Your task to perform on an android device: empty trash in google photos Image 0: 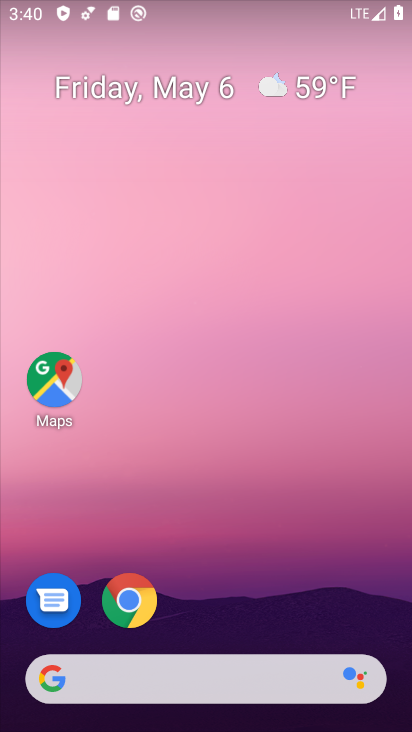
Step 0: drag from (218, 628) to (306, 2)
Your task to perform on an android device: empty trash in google photos Image 1: 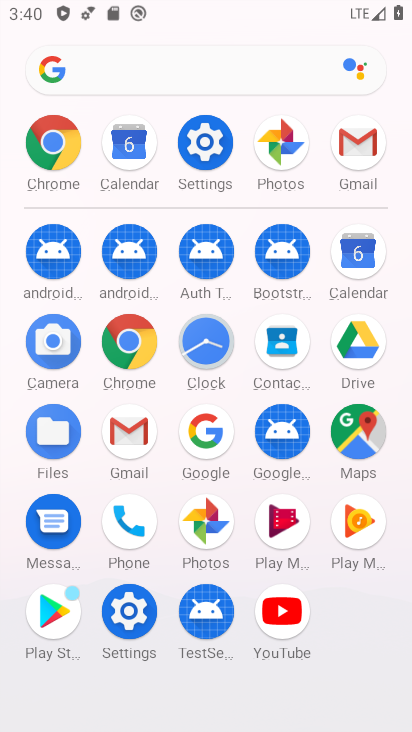
Step 1: click (201, 530)
Your task to perform on an android device: empty trash in google photos Image 2: 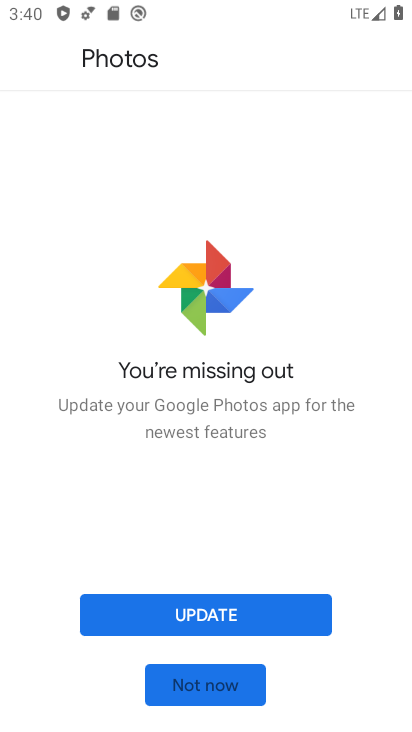
Step 2: click (193, 694)
Your task to perform on an android device: empty trash in google photos Image 3: 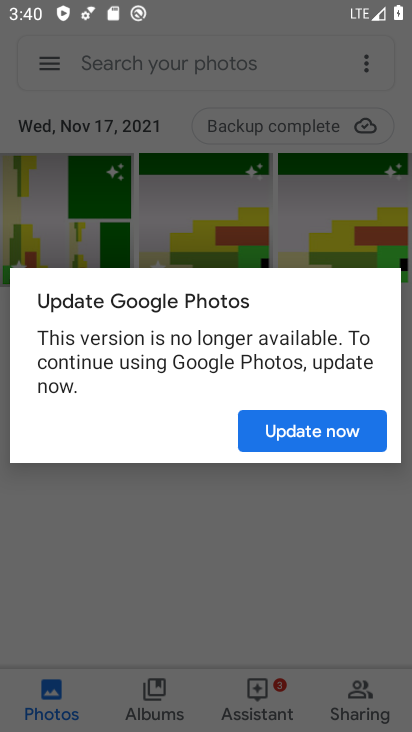
Step 3: click (319, 431)
Your task to perform on an android device: empty trash in google photos Image 4: 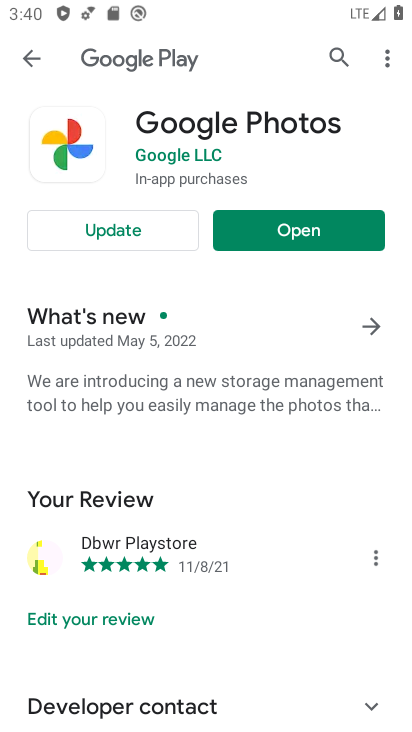
Step 4: click (125, 235)
Your task to perform on an android device: empty trash in google photos Image 5: 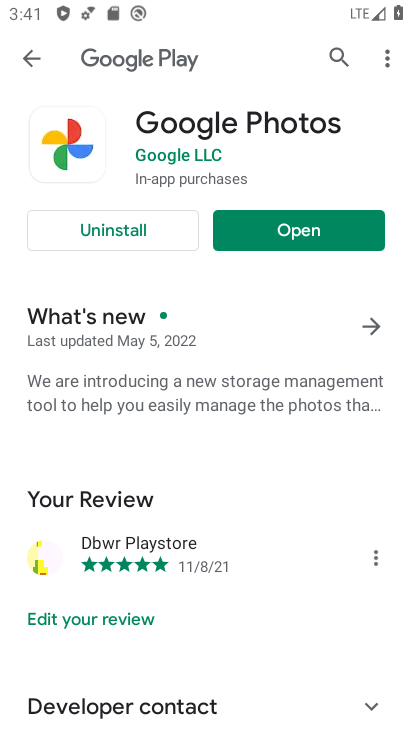
Step 5: click (283, 241)
Your task to perform on an android device: empty trash in google photos Image 6: 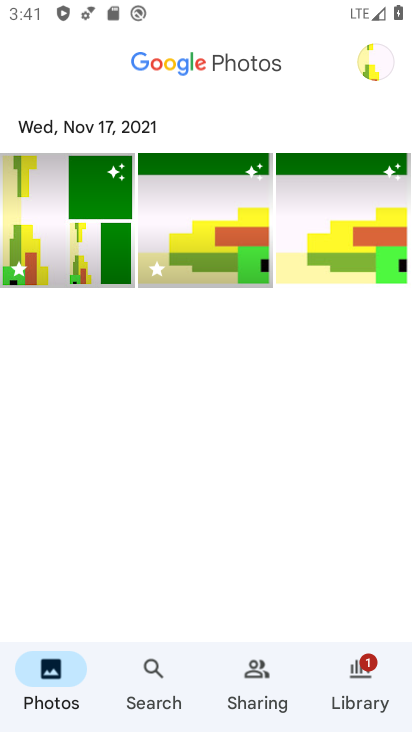
Step 6: click (373, 677)
Your task to perform on an android device: empty trash in google photos Image 7: 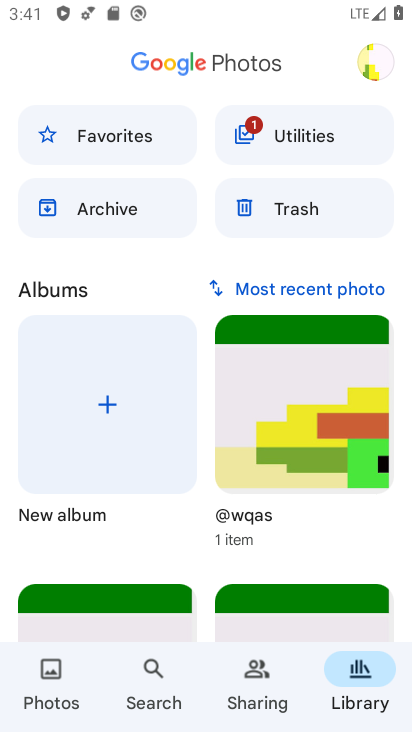
Step 7: click (310, 208)
Your task to perform on an android device: empty trash in google photos Image 8: 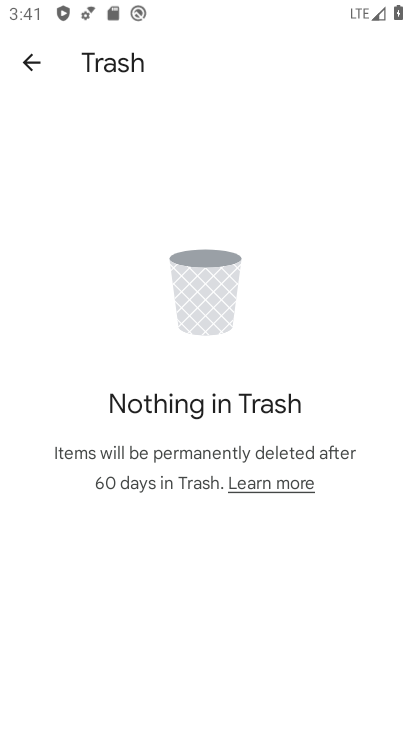
Step 8: task complete